Your task to perform on an android device: toggle wifi Image 0: 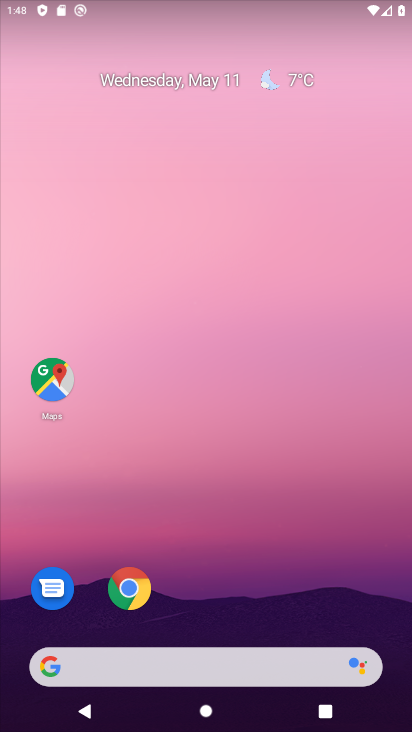
Step 0: drag from (193, 11) to (257, 397)
Your task to perform on an android device: toggle wifi Image 1: 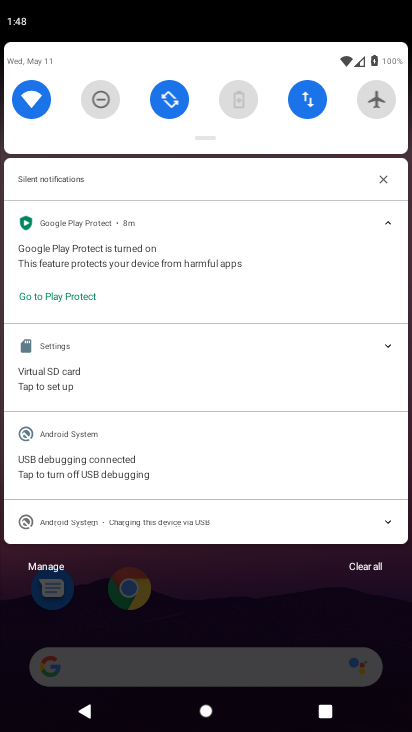
Step 1: click (35, 94)
Your task to perform on an android device: toggle wifi Image 2: 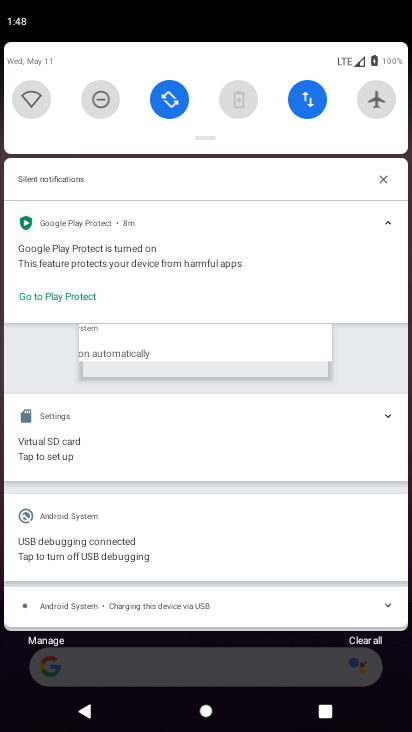
Step 2: click (35, 94)
Your task to perform on an android device: toggle wifi Image 3: 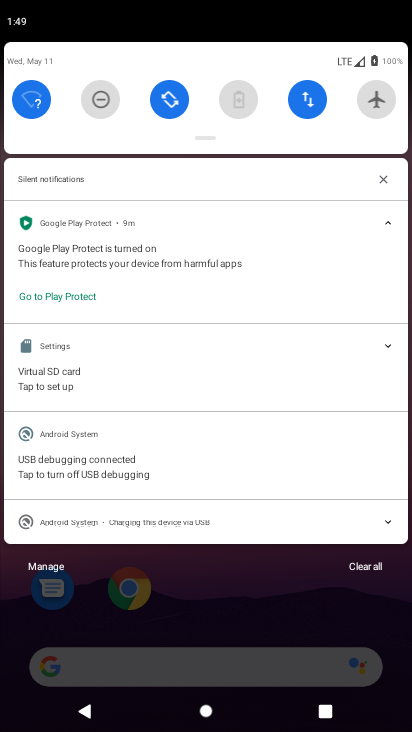
Step 3: task complete